Your task to perform on an android device: turn on the 24-hour format for clock Image 0: 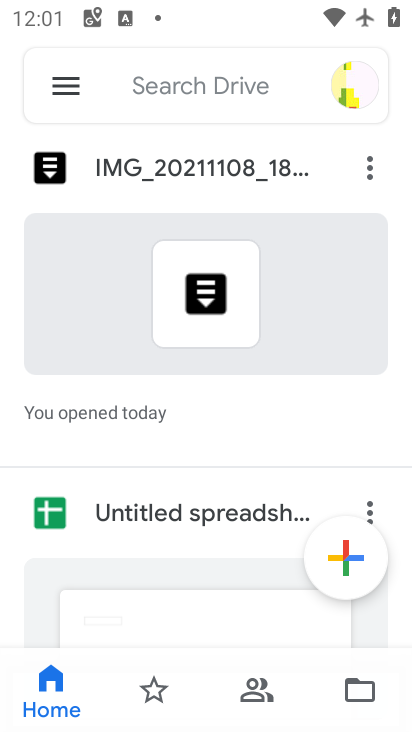
Step 0: press home button
Your task to perform on an android device: turn on the 24-hour format for clock Image 1: 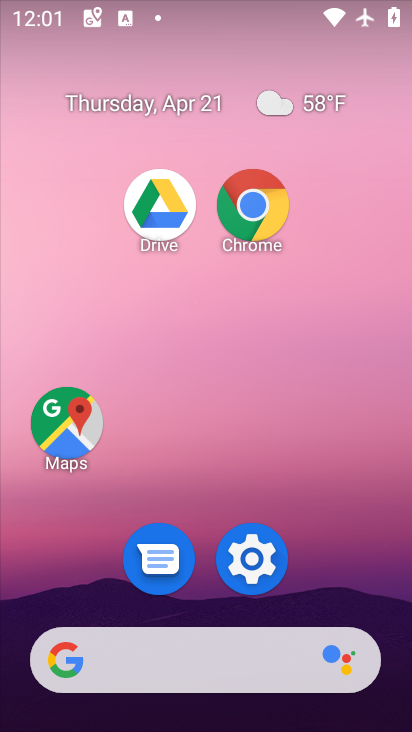
Step 1: drag from (320, 546) to (371, 16)
Your task to perform on an android device: turn on the 24-hour format for clock Image 2: 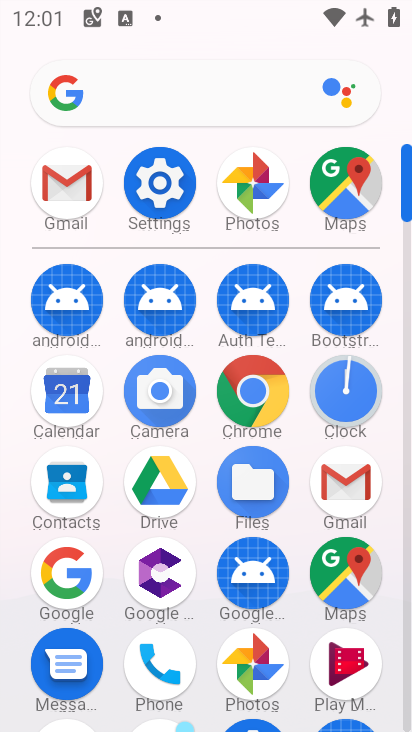
Step 2: click (338, 374)
Your task to perform on an android device: turn on the 24-hour format for clock Image 3: 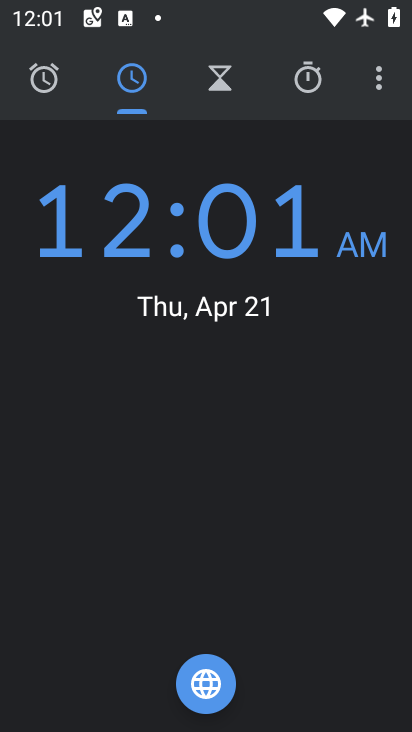
Step 3: click (387, 90)
Your task to perform on an android device: turn on the 24-hour format for clock Image 4: 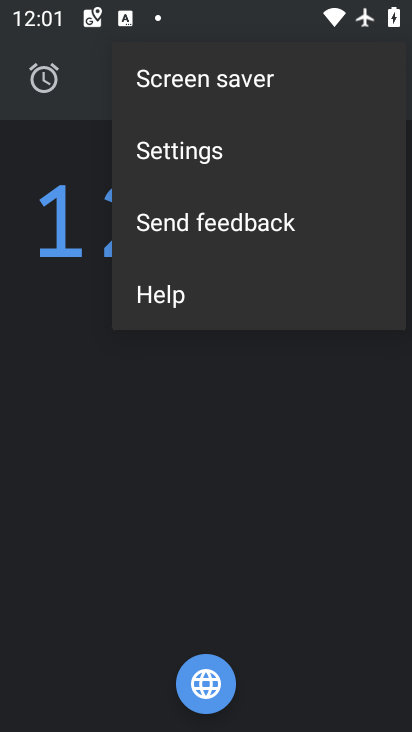
Step 4: click (223, 154)
Your task to perform on an android device: turn on the 24-hour format for clock Image 5: 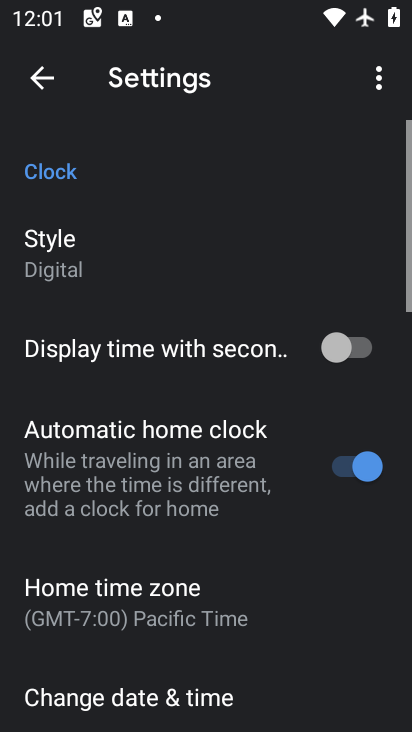
Step 5: drag from (303, 676) to (289, 112)
Your task to perform on an android device: turn on the 24-hour format for clock Image 6: 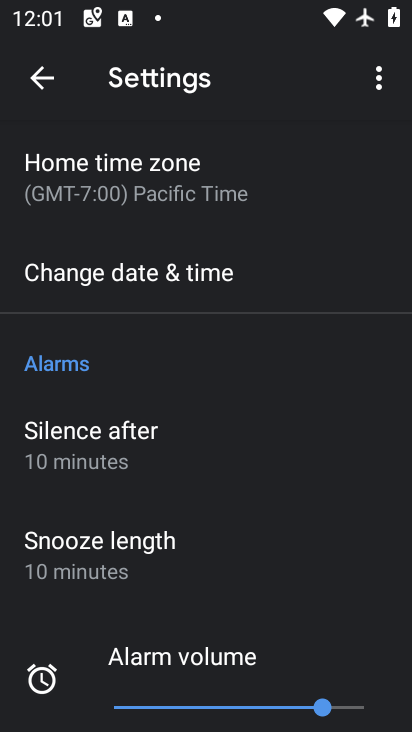
Step 6: click (189, 303)
Your task to perform on an android device: turn on the 24-hour format for clock Image 7: 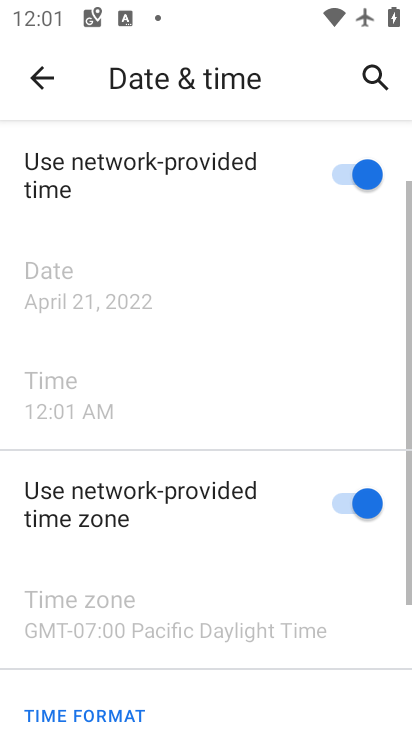
Step 7: drag from (285, 689) to (271, 128)
Your task to perform on an android device: turn on the 24-hour format for clock Image 8: 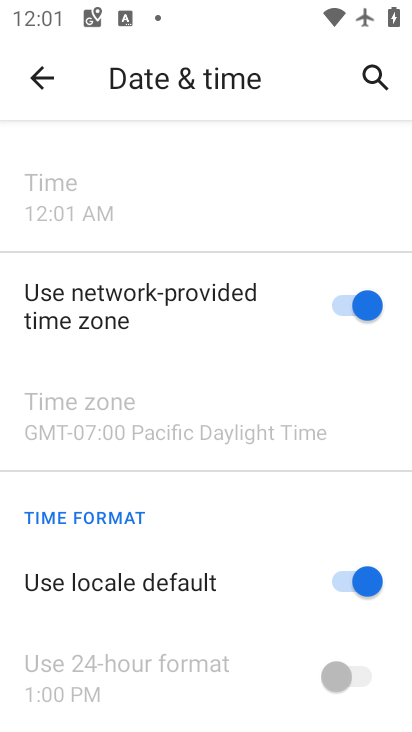
Step 8: click (345, 578)
Your task to perform on an android device: turn on the 24-hour format for clock Image 9: 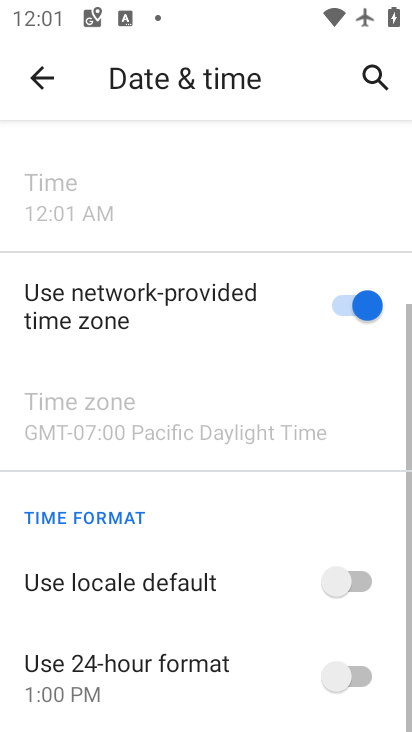
Step 9: click (370, 675)
Your task to perform on an android device: turn on the 24-hour format for clock Image 10: 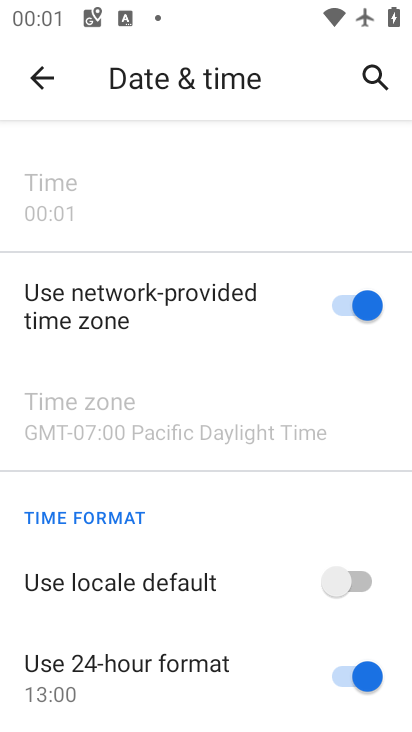
Step 10: task complete